Your task to perform on an android device: star an email in the gmail app Image 0: 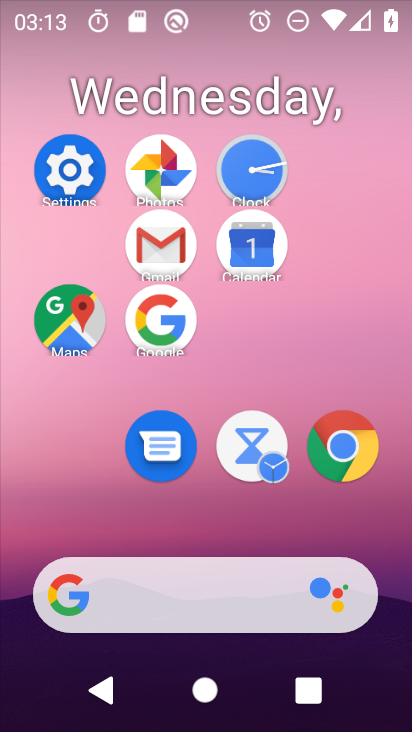
Step 0: click (140, 242)
Your task to perform on an android device: star an email in the gmail app Image 1: 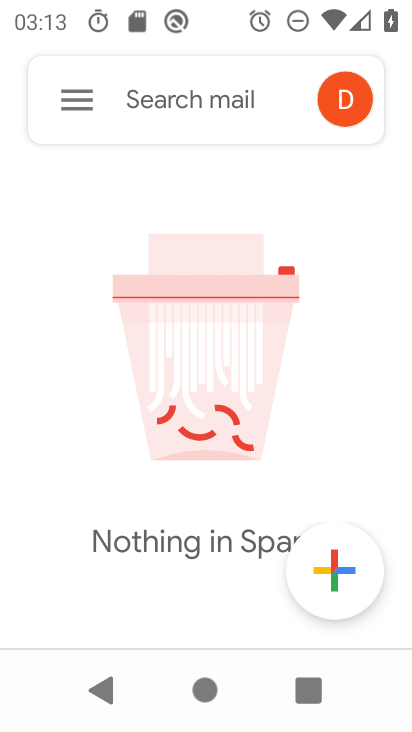
Step 1: click (93, 95)
Your task to perform on an android device: star an email in the gmail app Image 2: 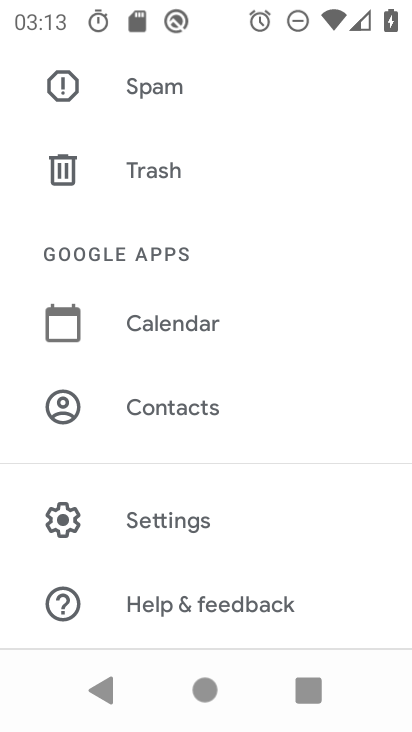
Step 2: drag from (269, 234) to (283, 673)
Your task to perform on an android device: star an email in the gmail app Image 3: 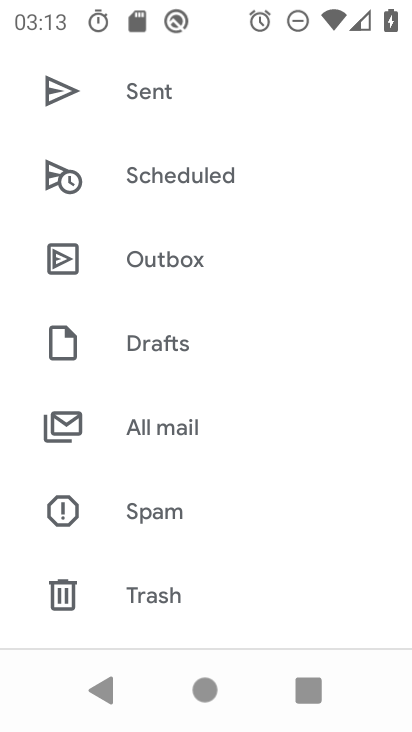
Step 3: click (214, 415)
Your task to perform on an android device: star an email in the gmail app Image 4: 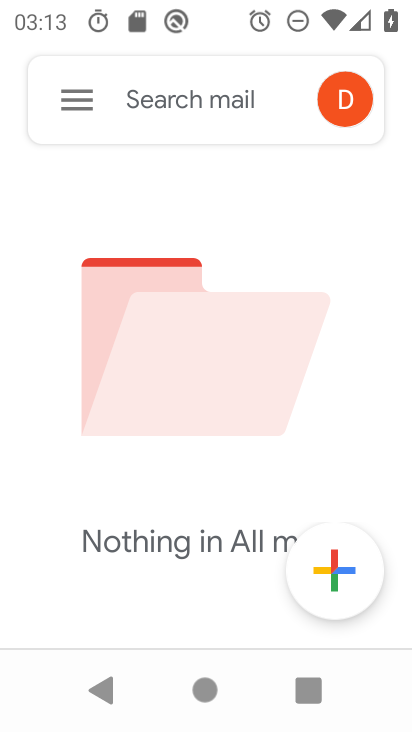
Step 4: task complete